Your task to perform on an android device: Go to battery settings Image 0: 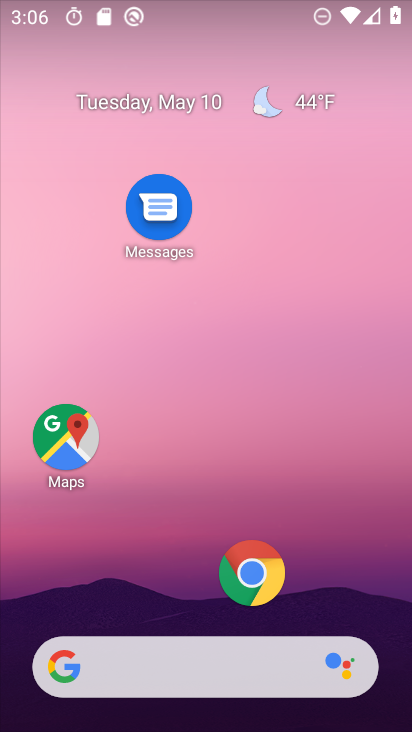
Step 0: drag from (177, 578) to (223, 272)
Your task to perform on an android device: Go to battery settings Image 1: 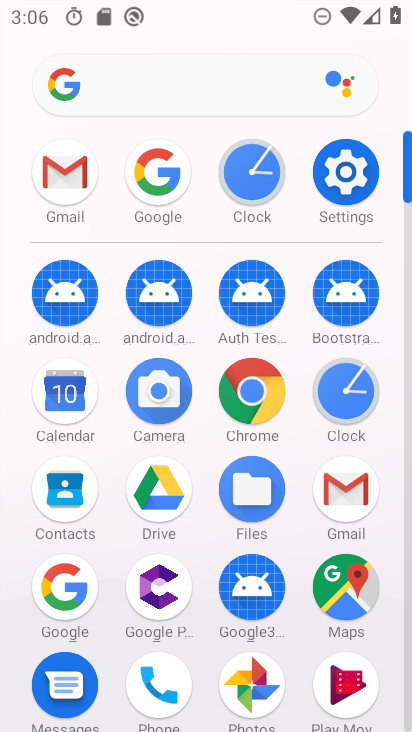
Step 1: click (332, 182)
Your task to perform on an android device: Go to battery settings Image 2: 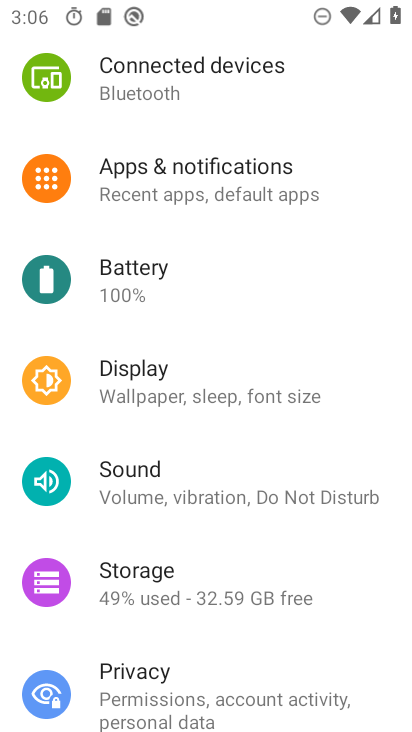
Step 2: click (203, 285)
Your task to perform on an android device: Go to battery settings Image 3: 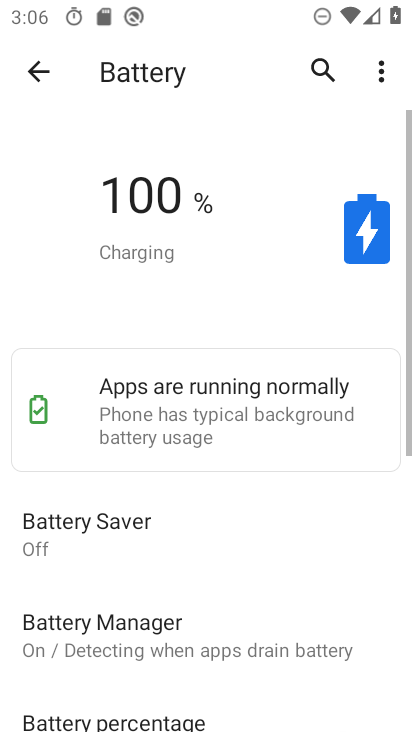
Step 3: task complete